Your task to perform on an android device: Open Youtube and go to the subscriptions tab Image 0: 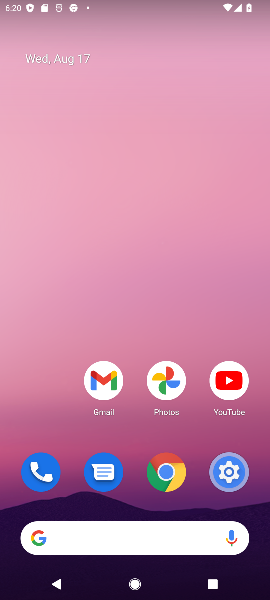
Step 0: click (216, 392)
Your task to perform on an android device: Open Youtube and go to the subscriptions tab Image 1: 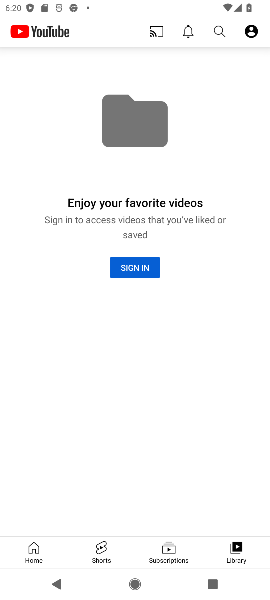
Step 1: click (167, 543)
Your task to perform on an android device: Open Youtube and go to the subscriptions tab Image 2: 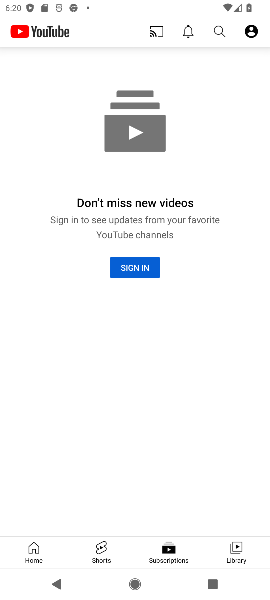
Step 2: task complete